Your task to perform on an android device: Go to Yahoo.com Image 0: 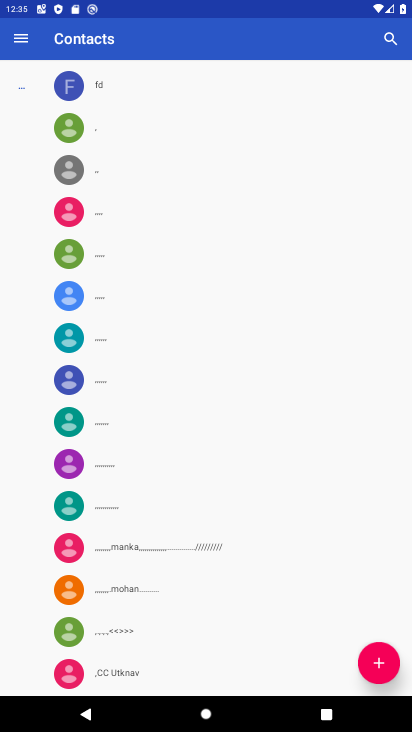
Step 0: press home button
Your task to perform on an android device: Go to Yahoo.com Image 1: 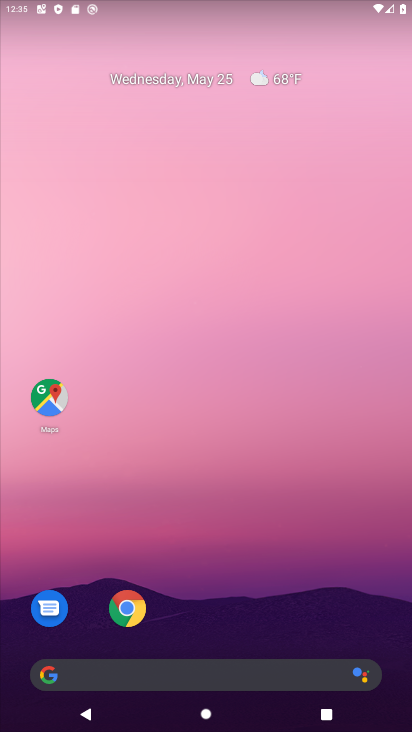
Step 1: click (128, 615)
Your task to perform on an android device: Go to Yahoo.com Image 2: 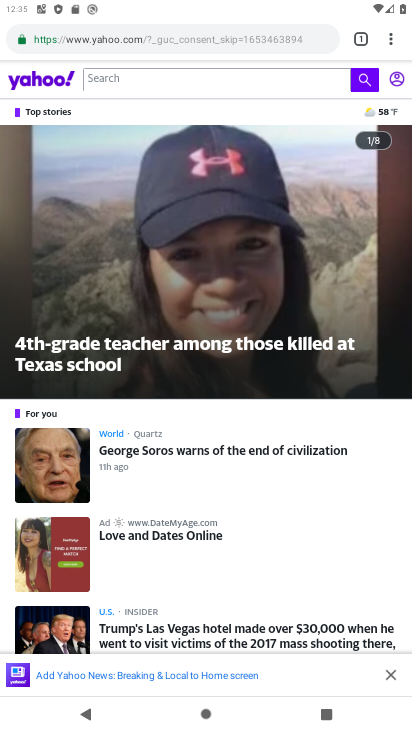
Step 2: task complete